Your task to perform on an android device: What's the weather? Image 0: 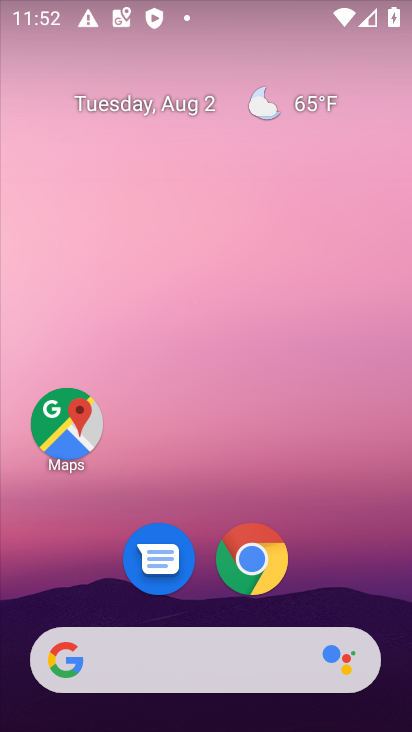
Step 0: drag from (205, 718) to (201, 174)
Your task to perform on an android device: What's the weather? Image 1: 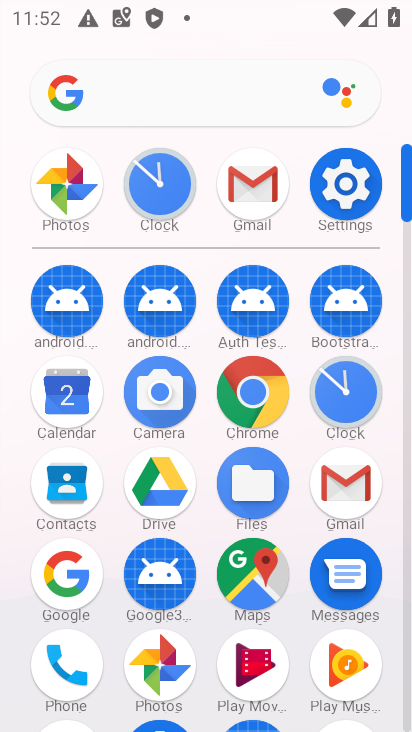
Step 1: click (62, 578)
Your task to perform on an android device: What's the weather? Image 2: 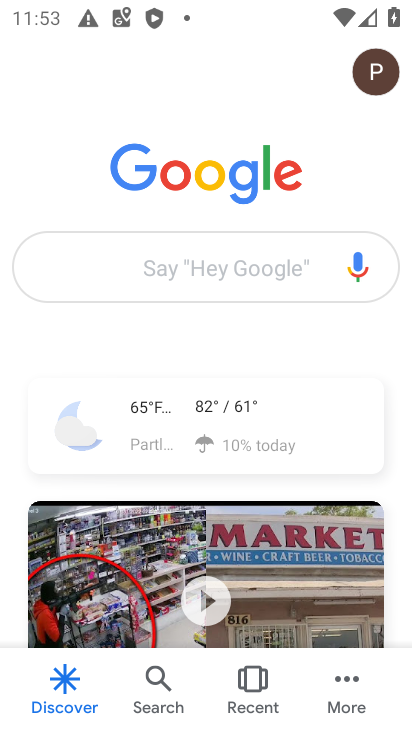
Step 2: click (174, 422)
Your task to perform on an android device: What's the weather? Image 3: 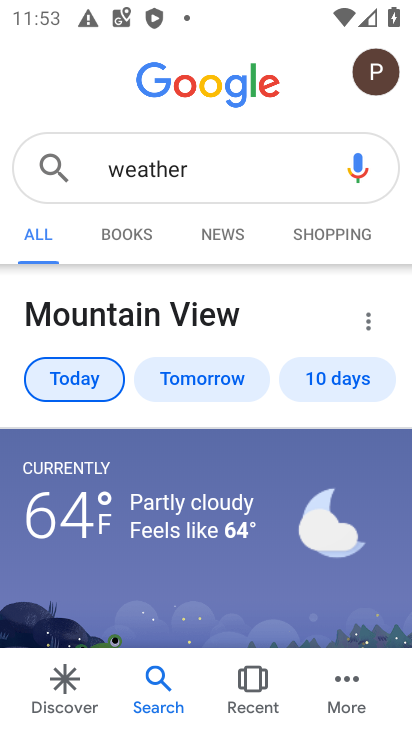
Step 3: click (76, 375)
Your task to perform on an android device: What's the weather? Image 4: 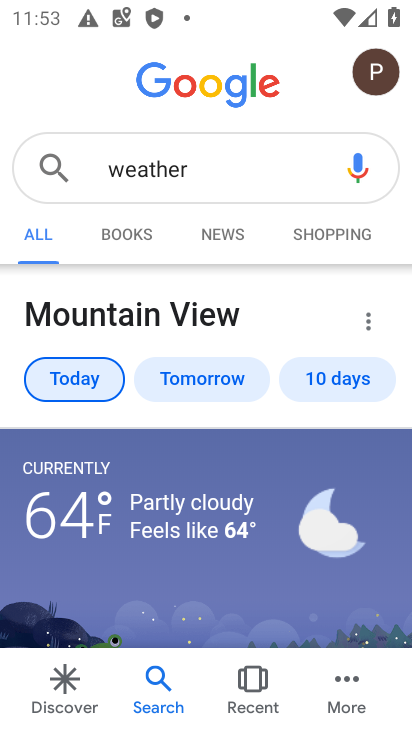
Step 4: task complete